Your task to perform on an android device: change the upload size in google photos Image 0: 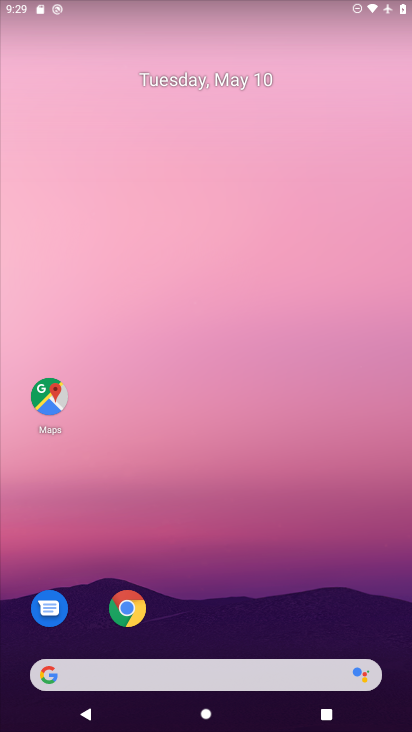
Step 0: drag from (254, 540) to (268, 363)
Your task to perform on an android device: change the upload size in google photos Image 1: 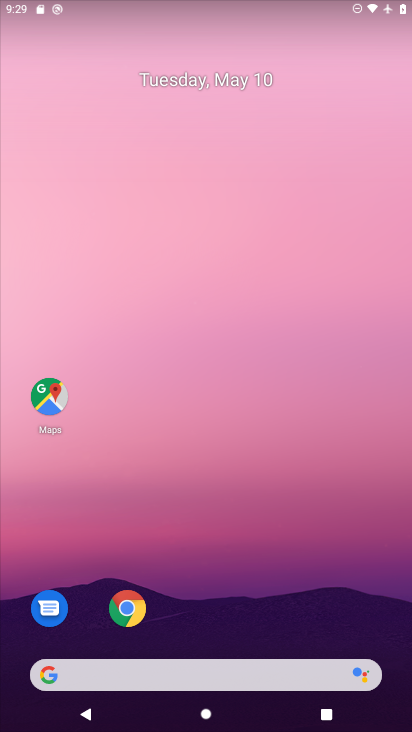
Step 1: drag from (271, 548) to (316, 319)
Your task to perform on an android device: change the upload size in google photos Image 2: 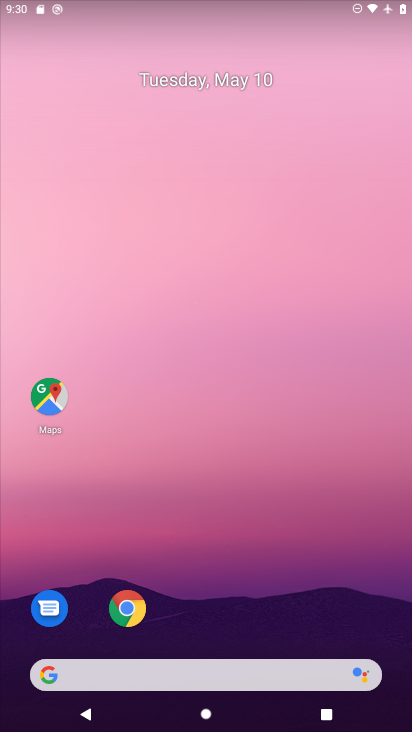
Step 2: drag from (222, 594) to (264, 321)
Your task to perform on an android device: change the upload size in google photos Image 3: 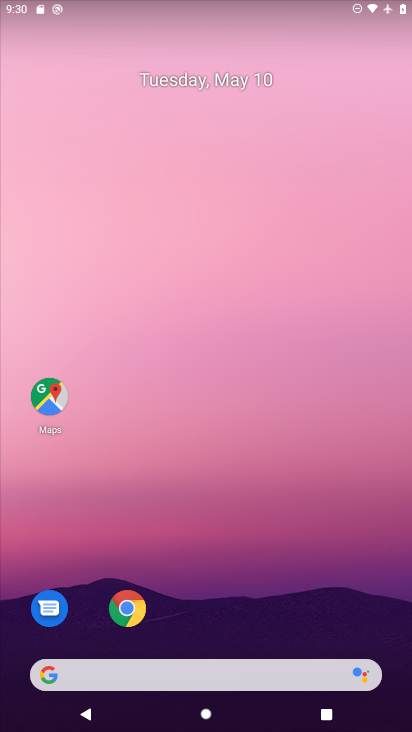
Step 3: drag from (209, 666) to (267, 235)
Your task to perform on an android device: change the upload size in google photos Image 4: 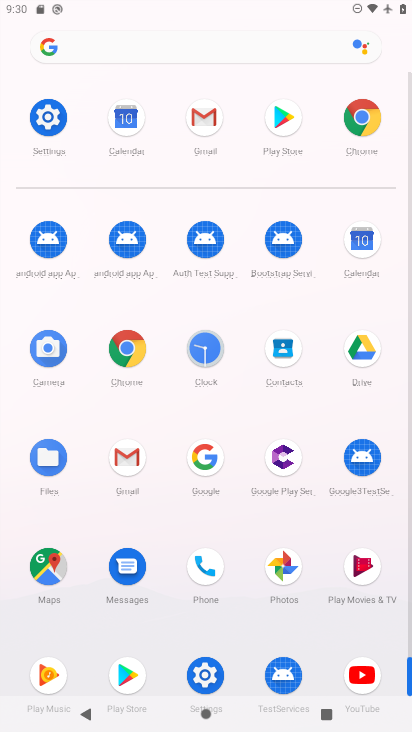
Step 4: click (280, 566)
Your task to perform on an android device: change the upload size in google photos Image 5: 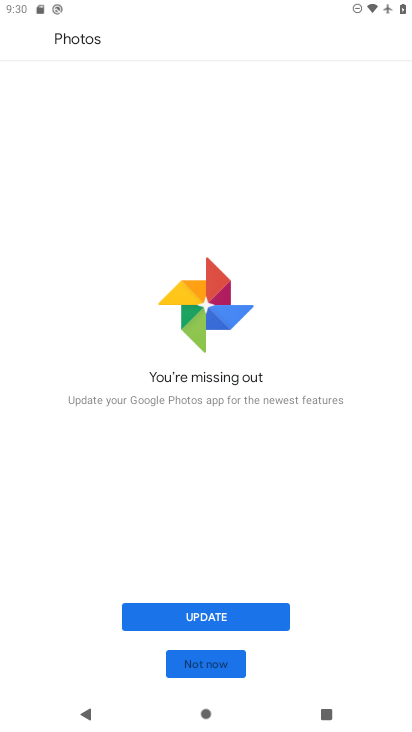
Step 5: click (211, 666)
Your task to perform on an android device: change the upload size in google photos Image 6: 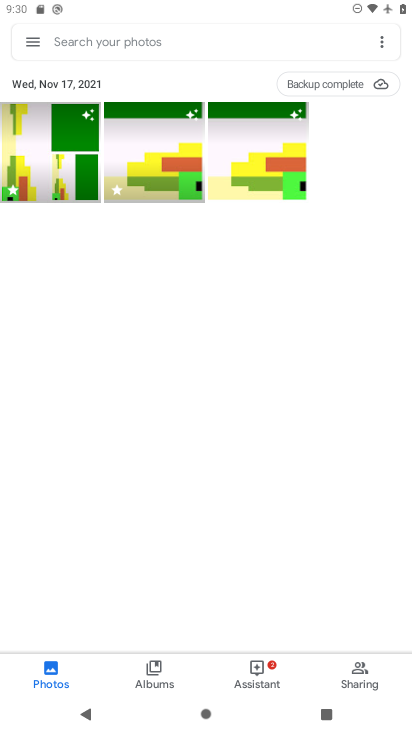
Step 6: click (30, 36)
Your task to perform on an android device: change the upload size in google photos Image 7: 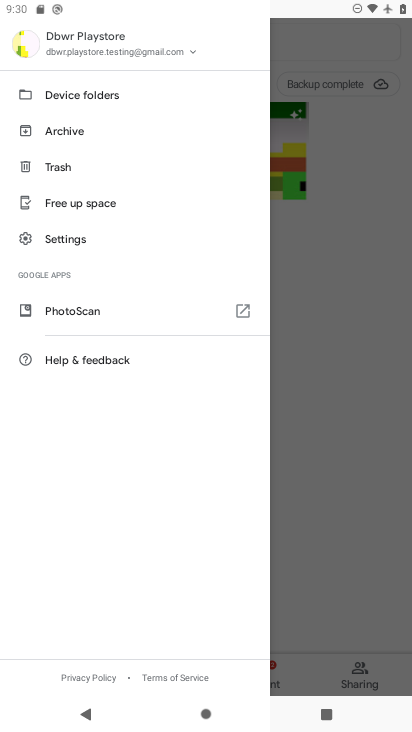
Step 7: click (73, 232)
Your task to perform on an android device: change the upload size in google photos Image 8: 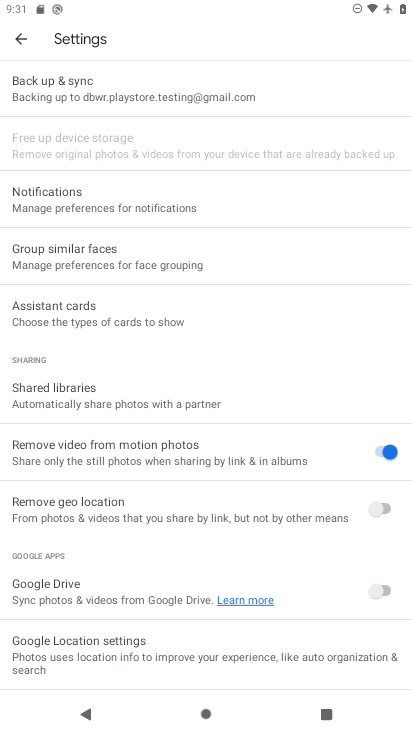
Step 8: click (141, 91)
Your task to perform on an android device: change the upload size in google photos Image 9: 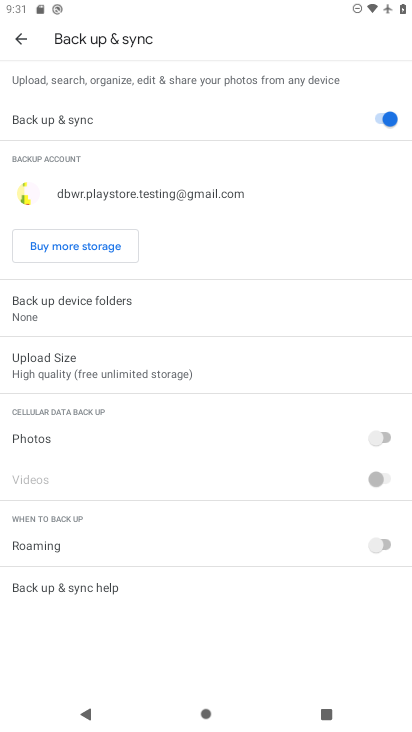
Step 9: click (123, 364)
Your task to perform on an android device: change the upload size in google photos Image 10: 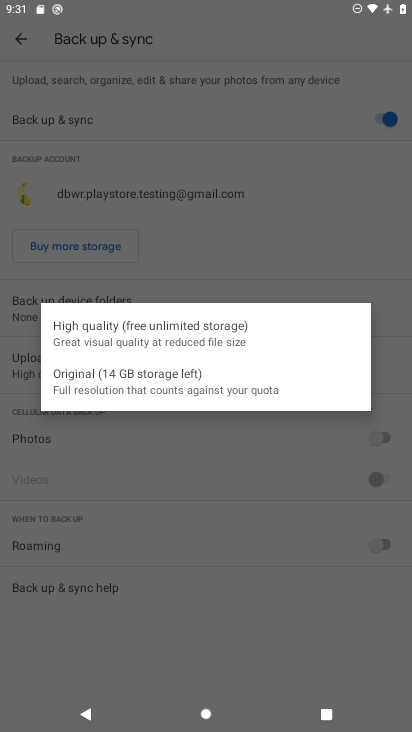
Step 10: click (123, 372)
Your task to perform on an android device: change the upload size in google photos Image 11: 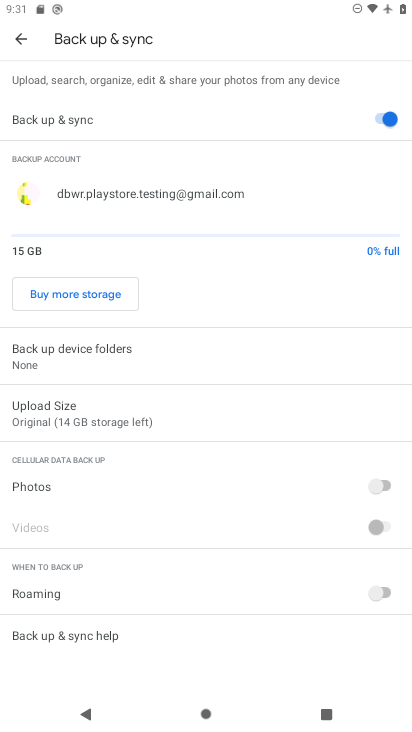
Step 11: task complete